Your task to perform on an android device: Go to network settings Image 0: 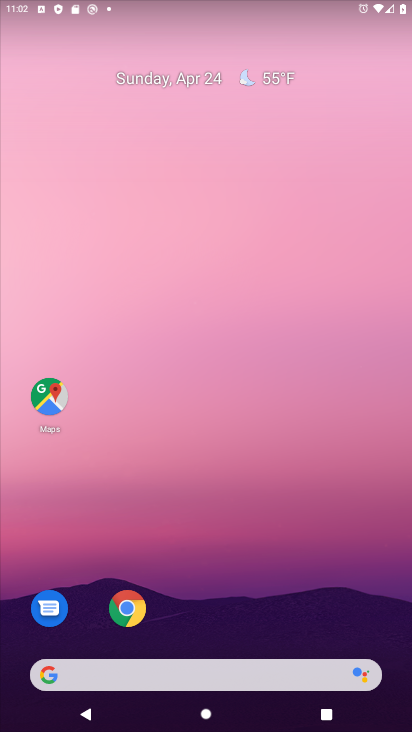
Step 0: drag from (364, 609) to (336, 136)
Your task to perform on an android device: Go to network settings Image 1: 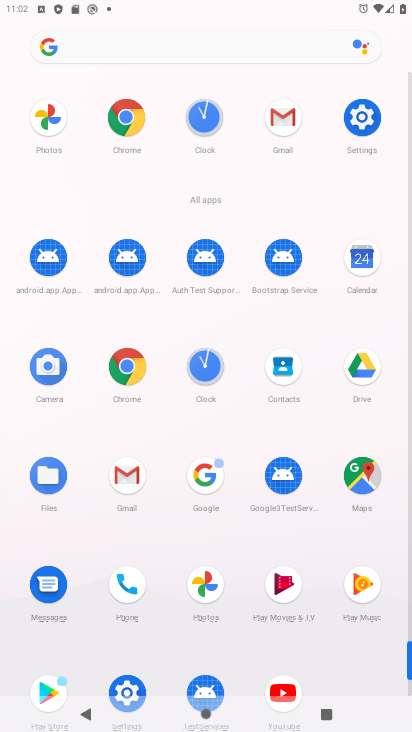
Step 1: click (408, 686)
Your task to perform on an android device: Go to network settings Image 2: 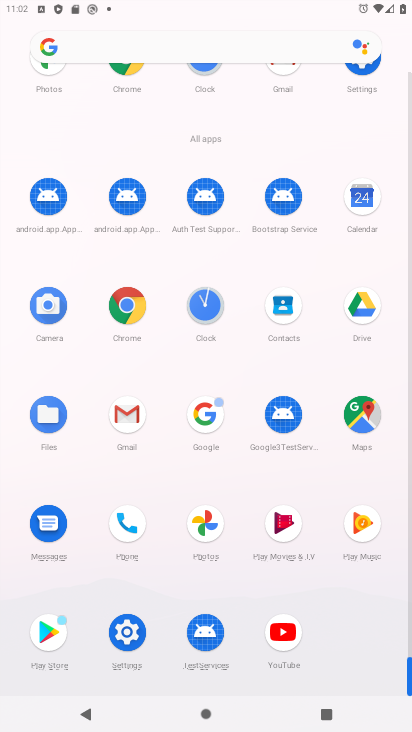
Step 2: click (127, 629)
Your task to perform on an android device: Go to network settings Image 3: 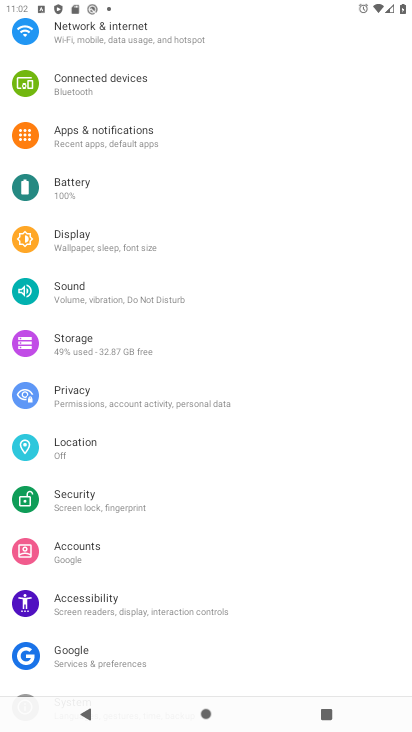
Step 3: drag from (266, 151) to (279, 424)
Your task to perform on an android device: Go to network settings Image 4: 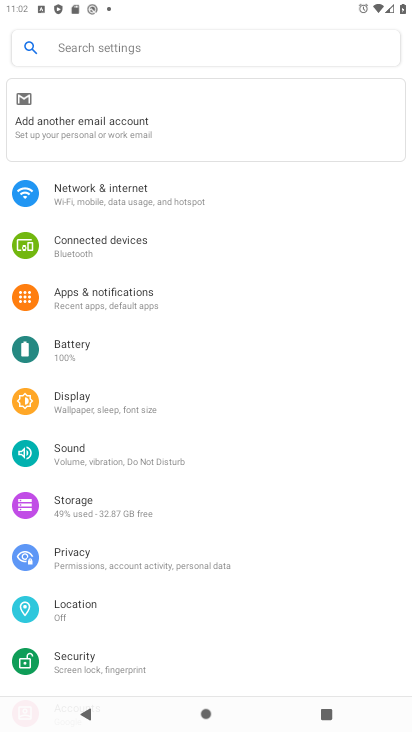
Step 4: click (80, 189)
Your task to perform on an android device: Go to network settings Image 5: 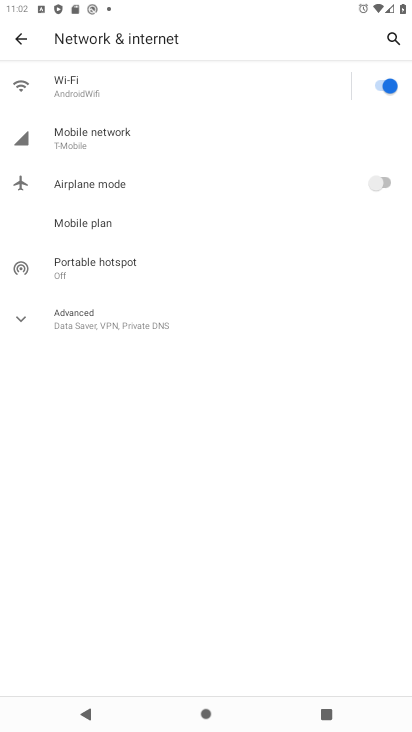
Step 5: click (76, 134)
Your task to perform on an android device: Go to network settings Image 6: 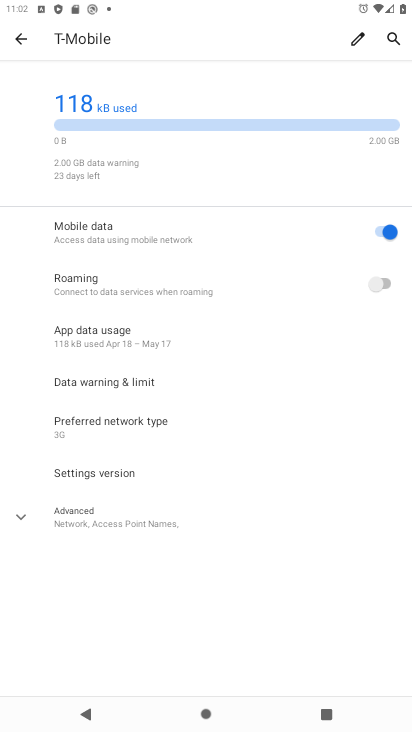
Step 6: click (17, 514)
Your task to perform on an android device: Go to network settings Image 7: 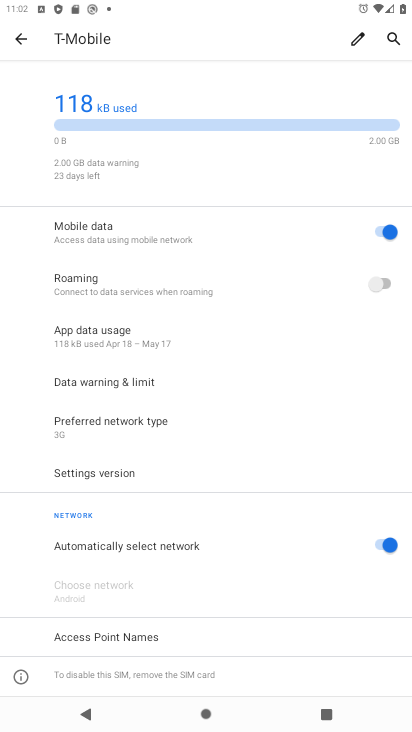
Step 7: task complete